Your task to perform on an android device: Go to Reddit.com Image 0: 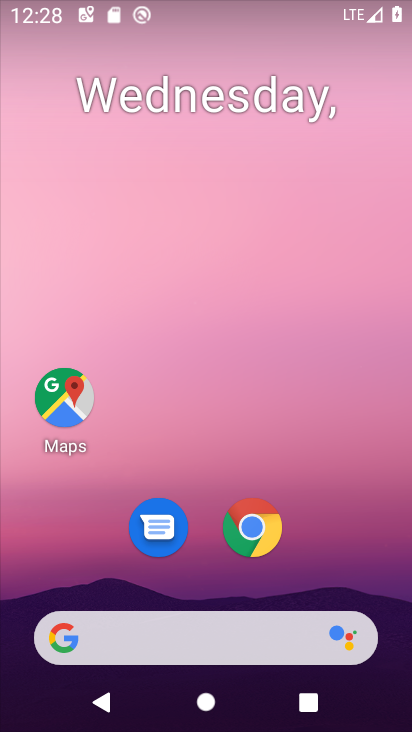
Step 0: drag from (310, 645) to (267, 66)
Your task to perform on an android device: Go to Reddit.com Image 1: 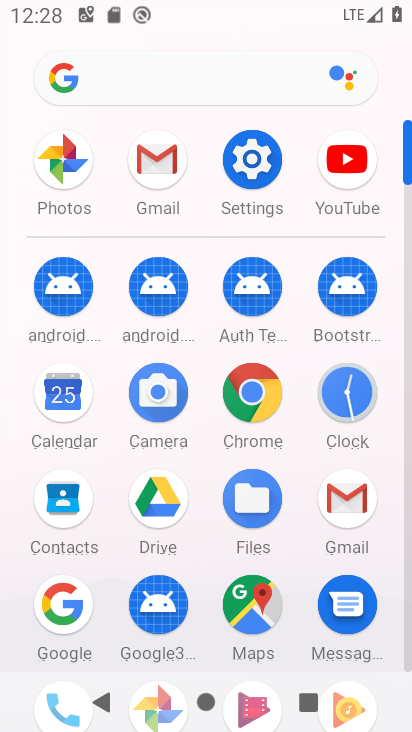
Step 1: click (255, 418)
Your task to perform on an android device: Go to Reddit.com Image 2: 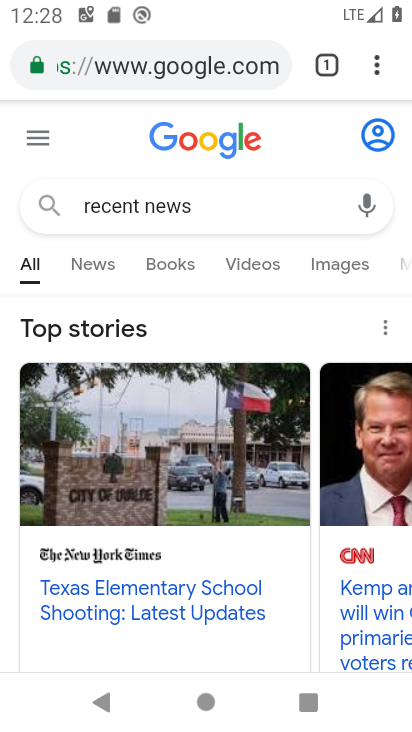
Step 2: click (220, 68)
Your task to perform on an android device: Go to Reddit.com Image 3: 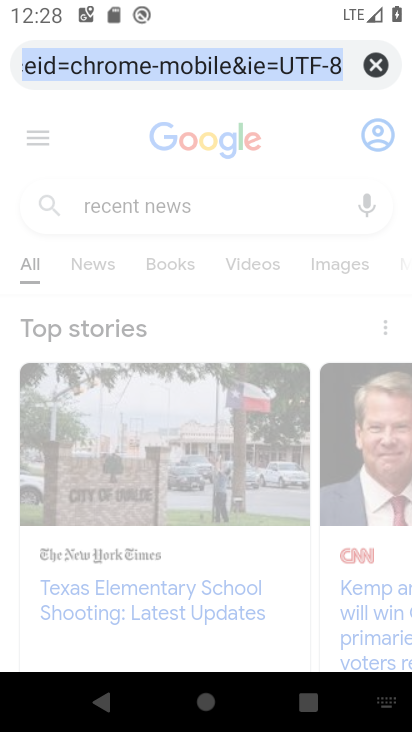
Step 3: type "reddit.com"
Your task to perform on an android device: Go to Reddit.com Image 4: 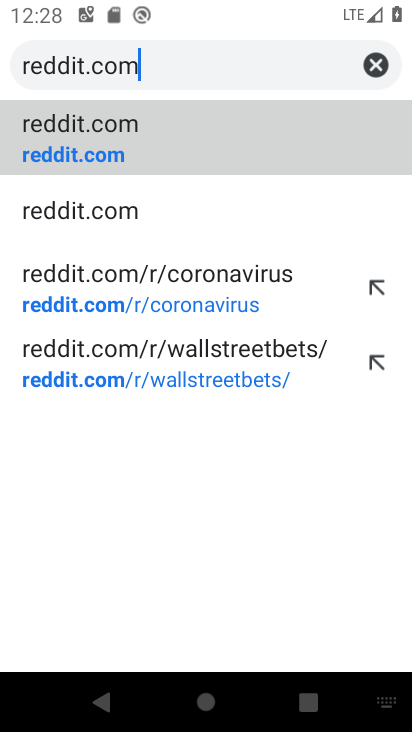
Step 4: click (131, 123)
Your task to perform on an android device: Go to Reddit.com Image 5: 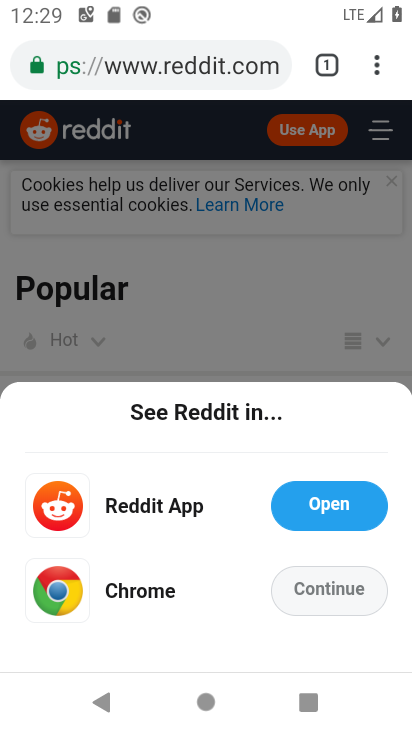
Step 5: task complete